Your task to perform on an android device: Open calendar and show me the first week of next month Image 0: 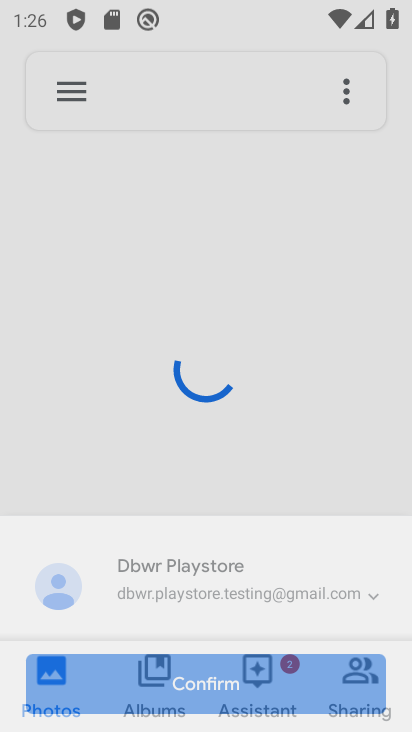
Step 0: press home button
Your task to perform on an android device: Open calendar and show me the first week of next month Image 1: 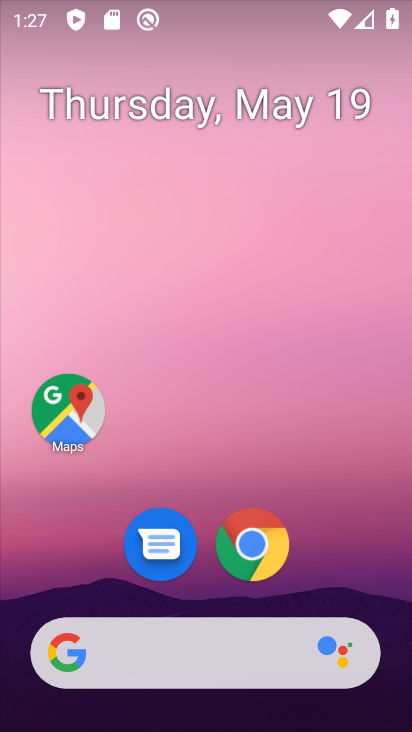
Step 1: drag from (208, 694) to (190, 195)
Your task to perform on an android device: Open calendar and show me the first week of next month Image 2: 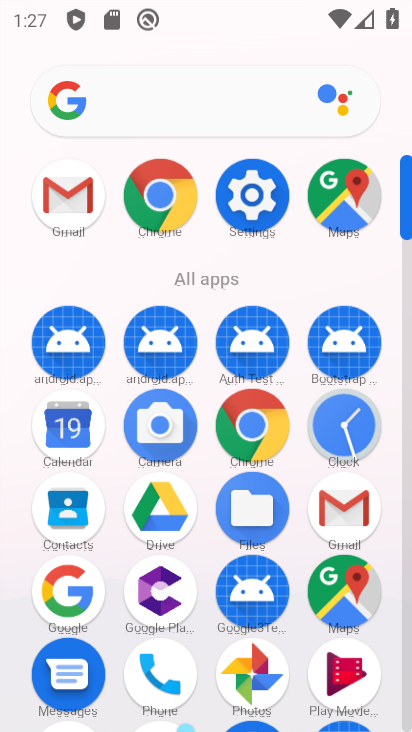
Step 2: click (45, 445)
Your task to perform on an android device: Open calendar and show me the first week of next month Image 3: 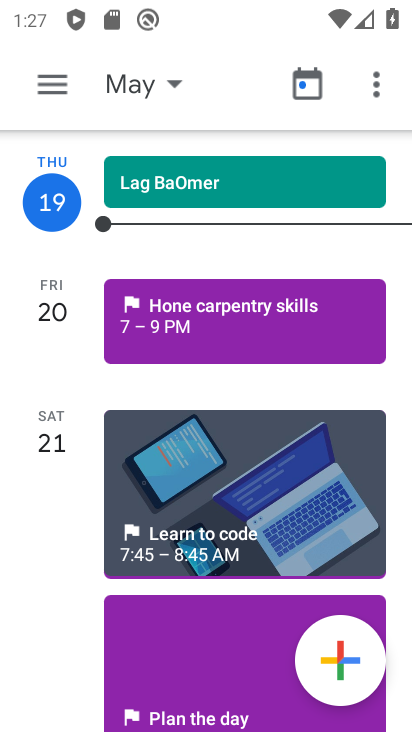
Step 3: click (50, 98)
Your task to perform on an android device: Open calendar and show me the first week of next month Image 4: 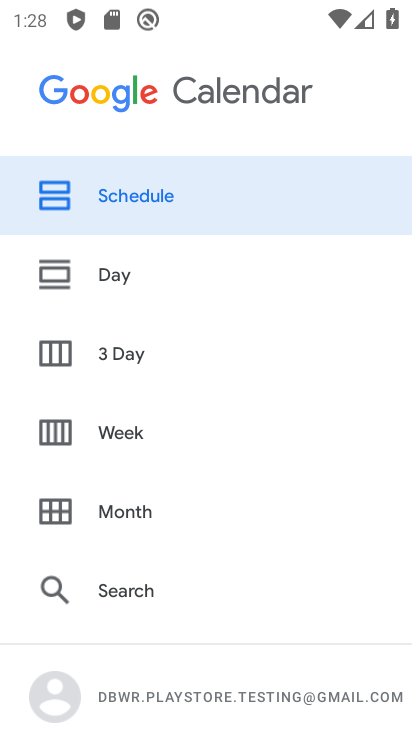
Step 4: click (127, 519)
Your task to perform on an android device: Open calendar and show me the first week of next month Image 5: 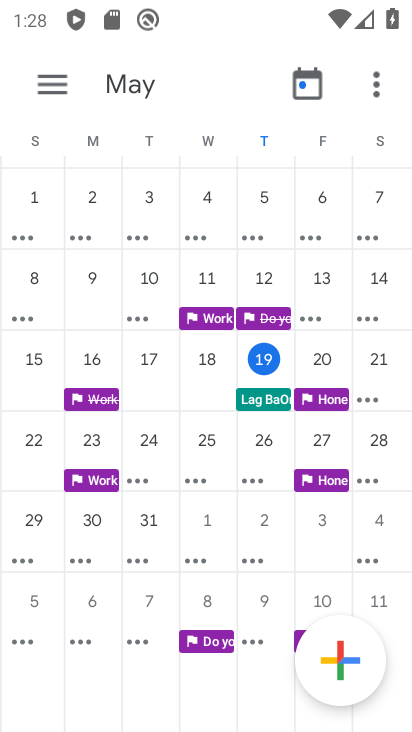
Step 5: drag from (362, 301) to (4, 238)
Your task to perform on an android device: Open calendar and show me the first week of next month Image 6: 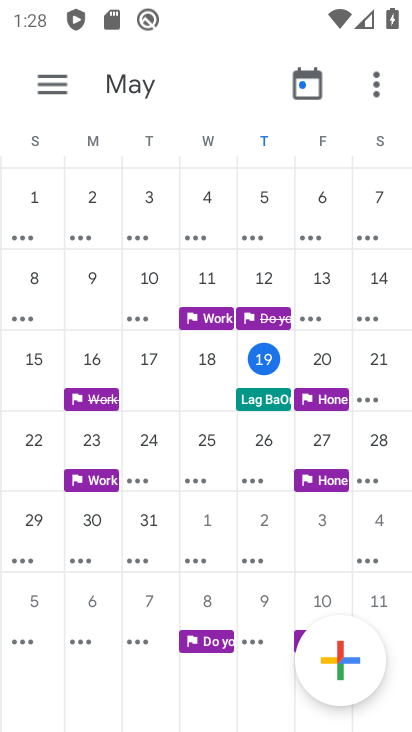
Step 6: drag from (383, 388) to (5, 288)
Your task to perform on an android device: Open calendar and show me the first week of next month Image 7: 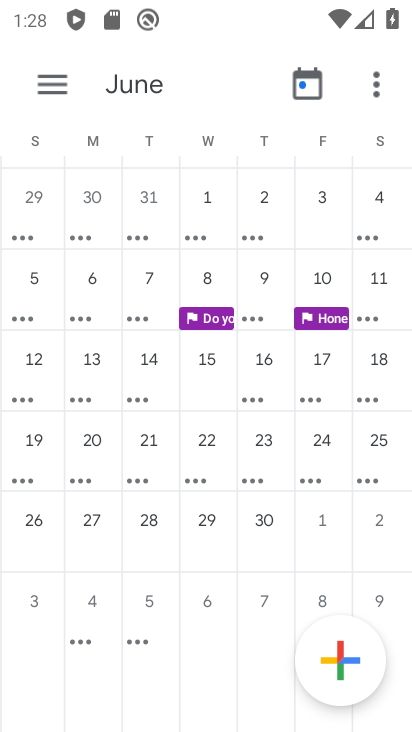
Step 7: click (200, 220)
Your task to perform on an android device: Open calendar and show me the first week of next month Image 8: 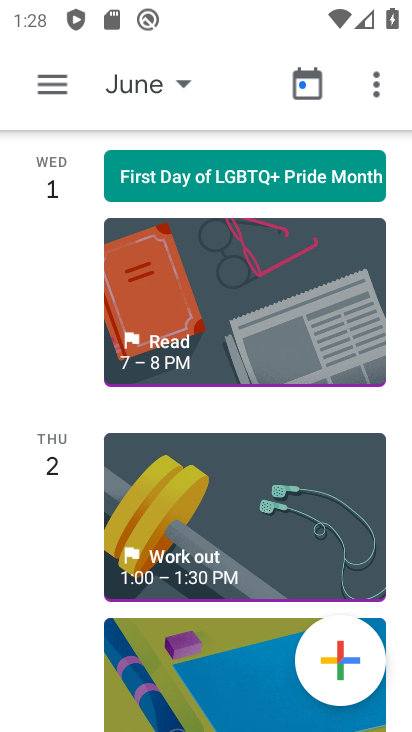
Step 8: task complete